Your task to perform on an android device: toggle show notifications on the lock screen Image 0: 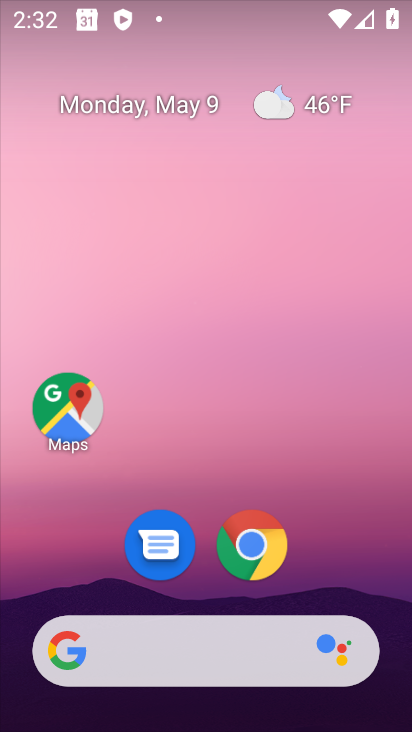
Step 0: drag from (213, 591) to (242, 331)
Your task to perform on an android device: toggle show notifications on the lock screen Image 1: 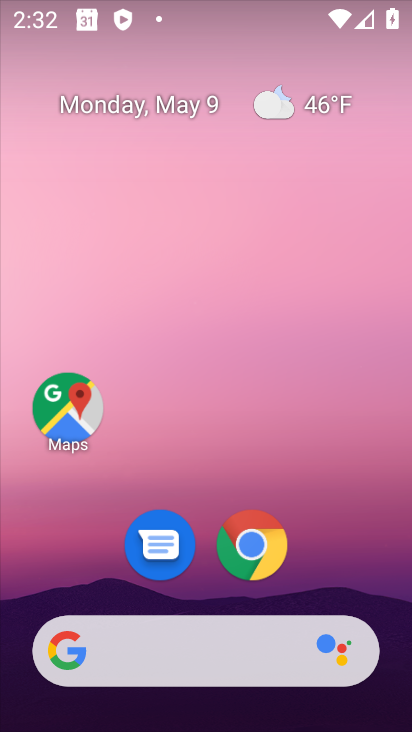
Step 1: drag from (206, 585) to (229, 104)
Your task to perform on an android device: toggle show notifications on the lock screen Image 2: 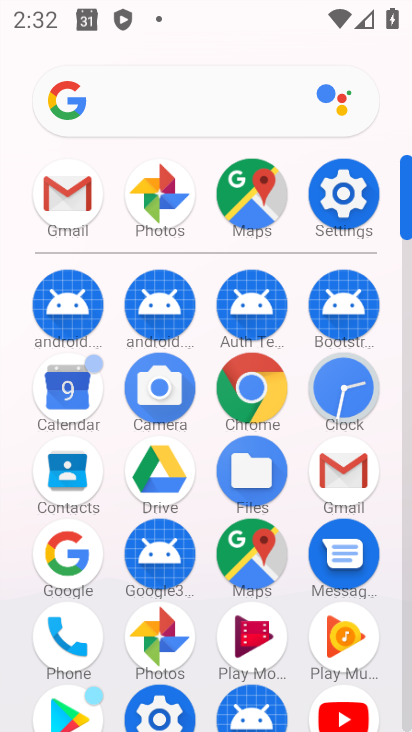
Step 2: click (323, 181)
Your task to perform on an android device: toggle show notifications on the lock screen Image 3: 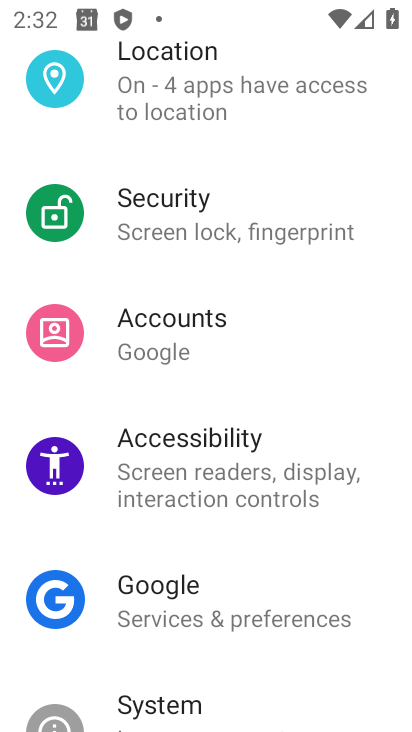
Step 3: drag from (218, 619) to (278, 501)
Your task to perform on an android device: toggle show notifications on the lock screen Image 4: 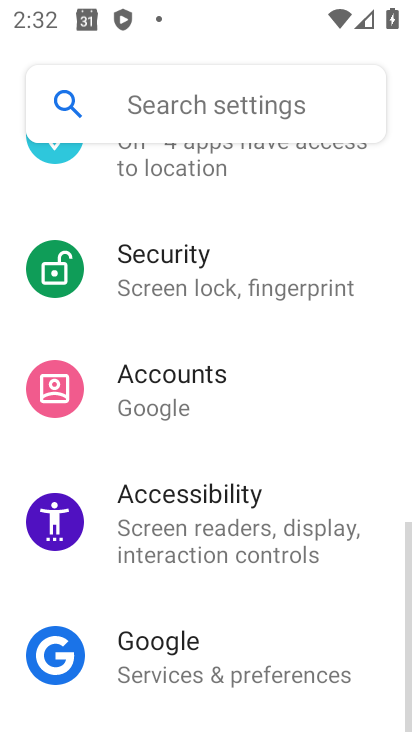
Step 4: drag from (240, 178) to (265, 492)
Your task to perform on an android device: toggle show notifications on the lock screen Image 5: 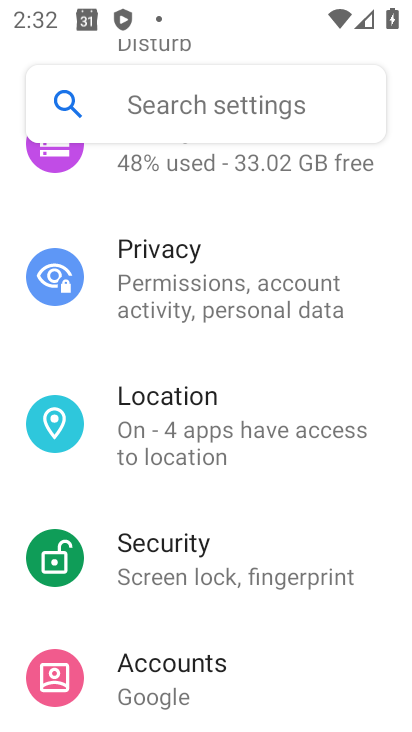
Step 5: drag from (235, 282) to (252, 481)
Your task to perform on an android device: toggle show notifications on the lock screen Image 6: 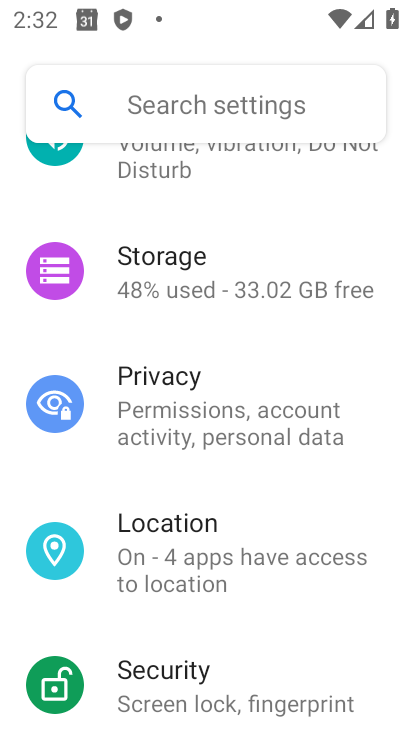
Step 6: drag from (224, 200) to (258, 436)
Your task to perform on an android device: toggle show notifications on the lock screen Image 7: 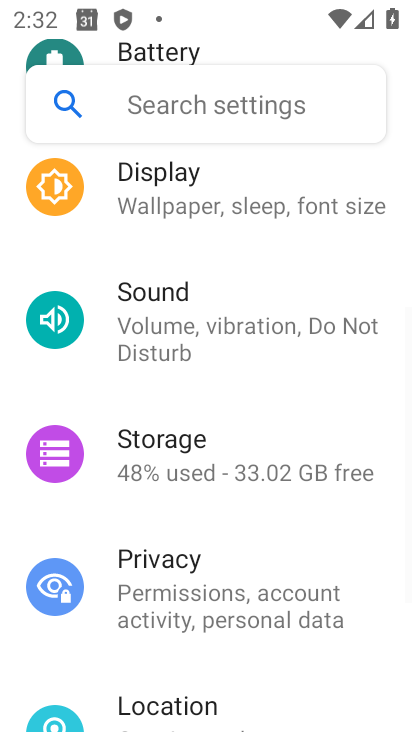
Step 7: drag from (236, 236) to (267, 556)
Your task to perform on an android device: toggle show notifications on the lock screen Image 8: 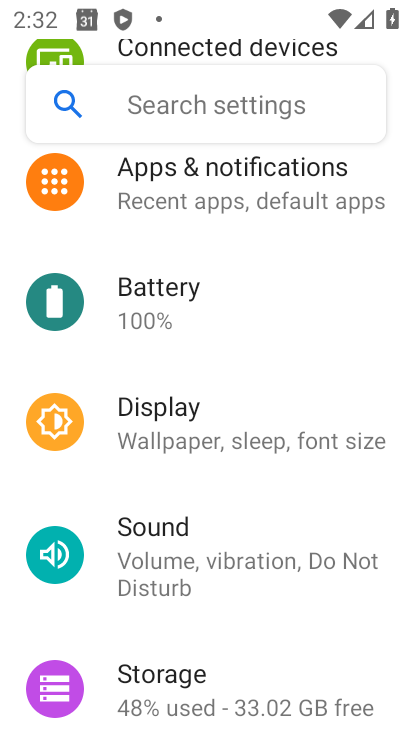
Step 8: click (193, 197)
Your task to perform on an android device: toggle show notifications on the lock screen Image 9: 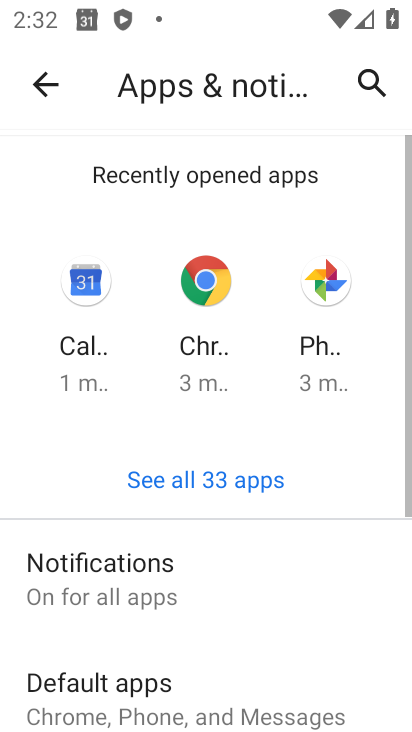
Step 9: click (197, 588)
Your task to perform on an android device: toggle show notifications on the lock screen Image 10: 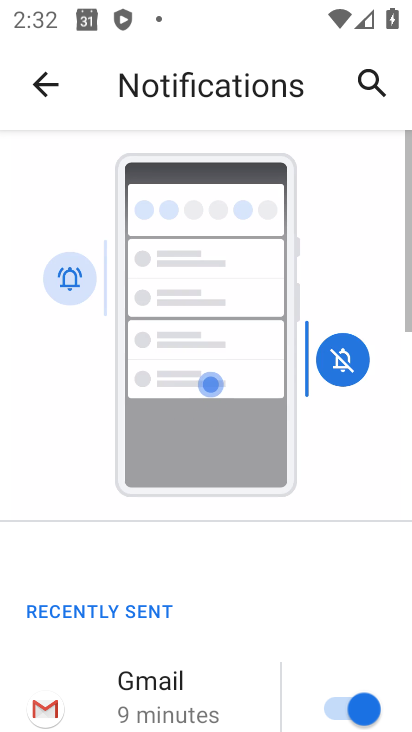
Step 10: drag from (182, 606) to (245, 213)
Your task to perform on an android device: toggle show notifications on the lock screen Image 11: 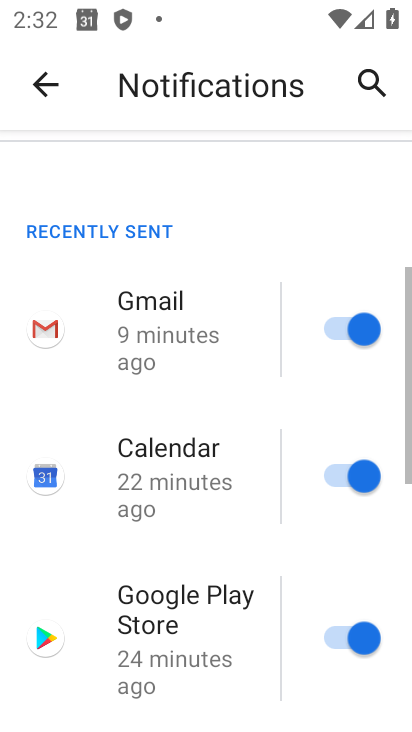
Step 11: drag from (223, 615) to (261, 336)
Your task to perform on an android device: toggle show notifications on the lock screen Image 12: 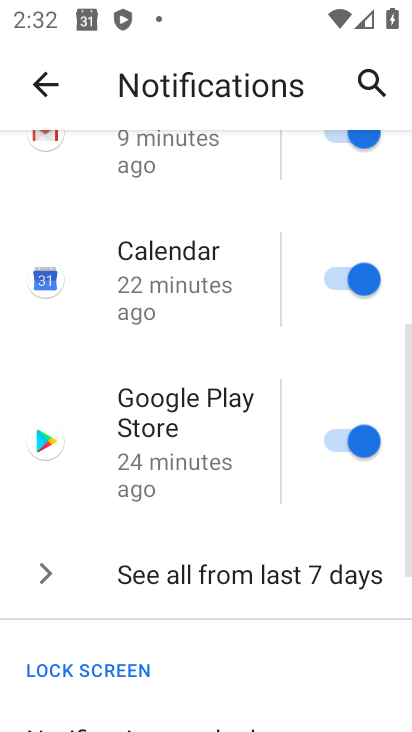
Step 12: drag from (221, 656) to (236, 402)
Your task to perform on an android device: toggle show notifications on the lock screen Image 13: 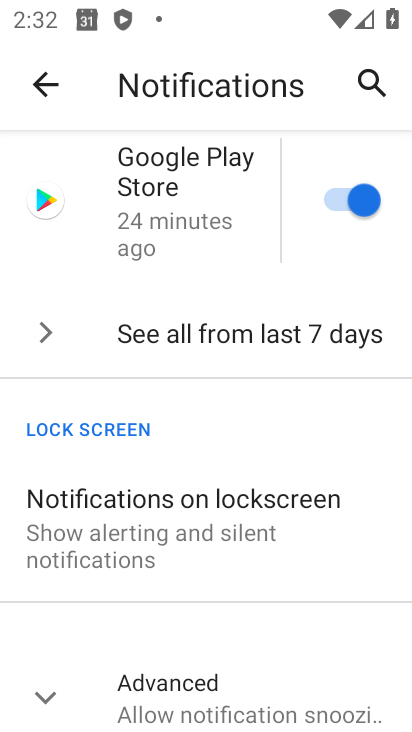
Step 13: click (194, 540)
Your task to perform on an android device: toggle show notifications on the lock screen Image 14: 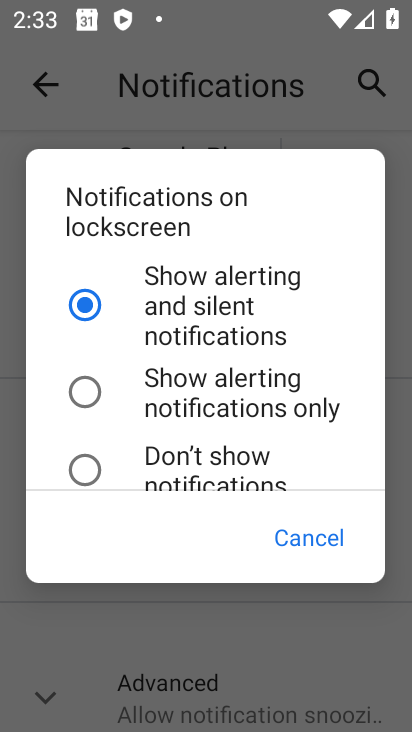
Step 14: click (182, 477)
Your task to perform on an android device: toggle show notifications on the lock screen Image 15: 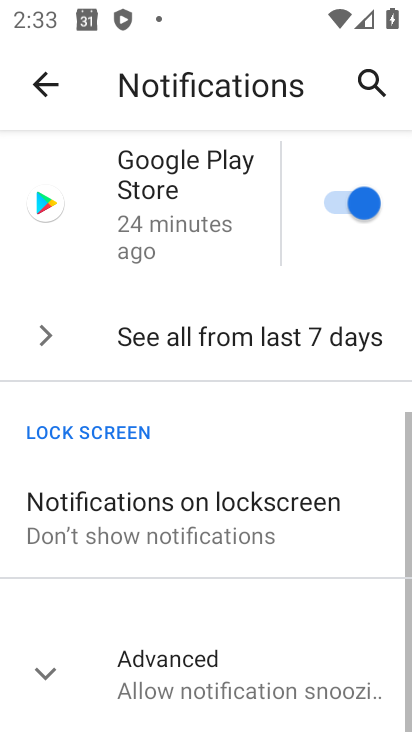
Step 15: task complete